Your task to perform on an android device: Go to Wikipedia Image 0: 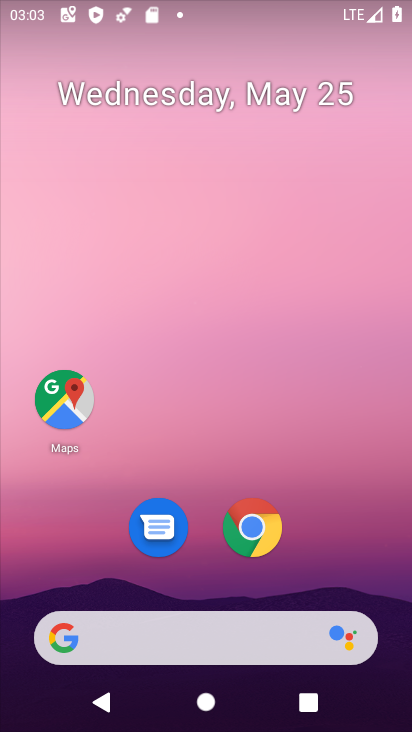
Step 0: drag from (199, 590) to (237, 222)
Your task to perform on an android device: Go to Wikipedia Image 1: 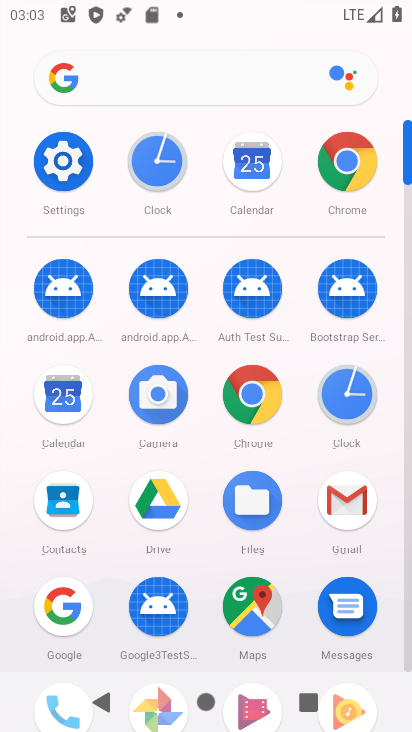
Step 1: click (66, 168)
Your task to perform on an android device: Go to Wikipedia Image 2: 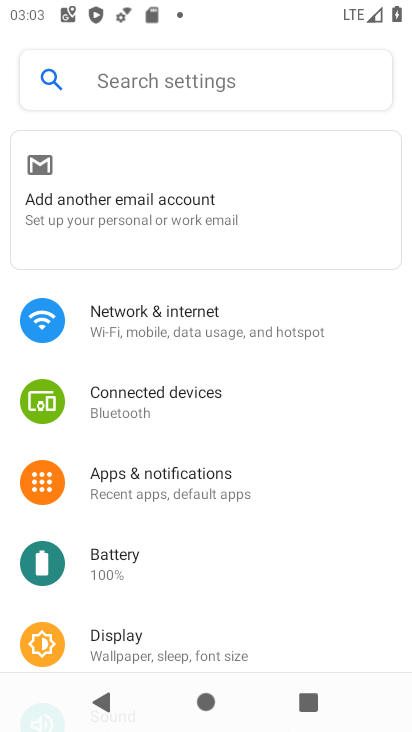
Step 2: click (189, 101)
Your task to perform on an android device: Go to Wikipedia Image 3: 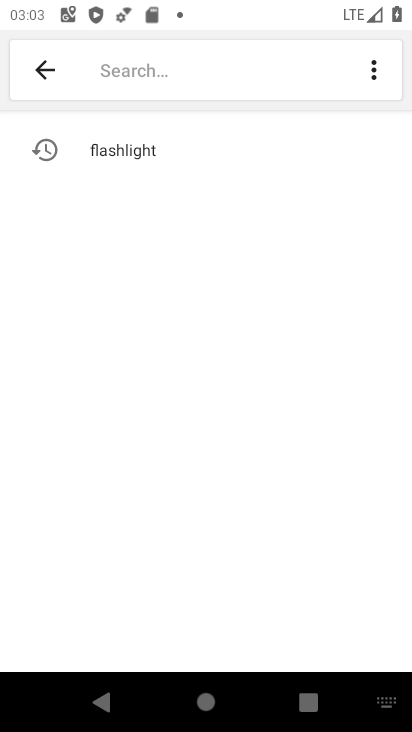
Step 3: click (38, 65)
Your task to perform on an android device: Go to Wikipedia Image 4: 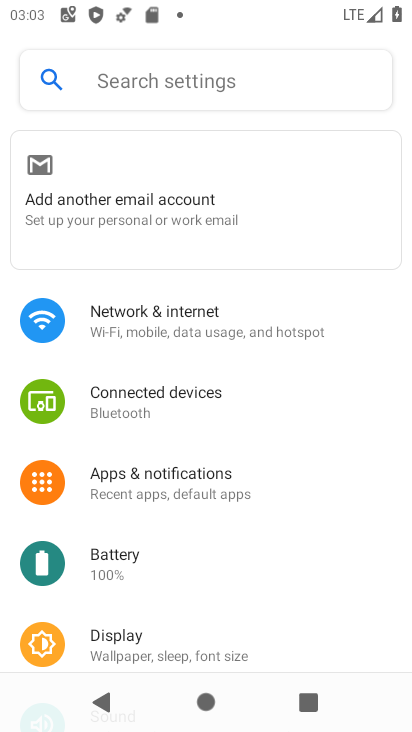
Step 4: press home button
Your task to perform on an android device: Go to Wikipedia Image 5: 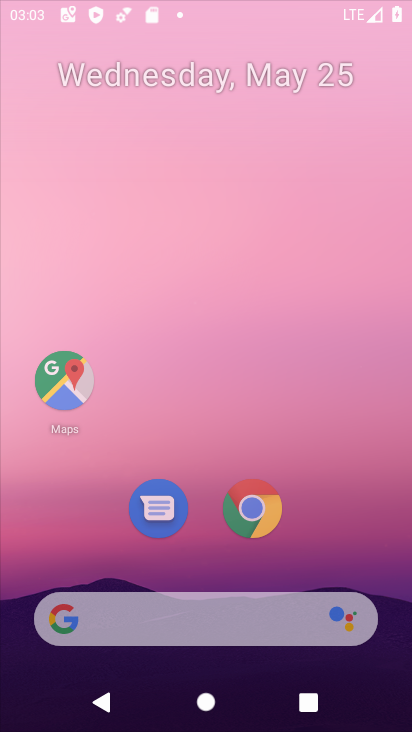
Step 5: drag from (222, 609) to (225, 96)
Your task to perform on an android device: Go to Wikipedia Image 6: 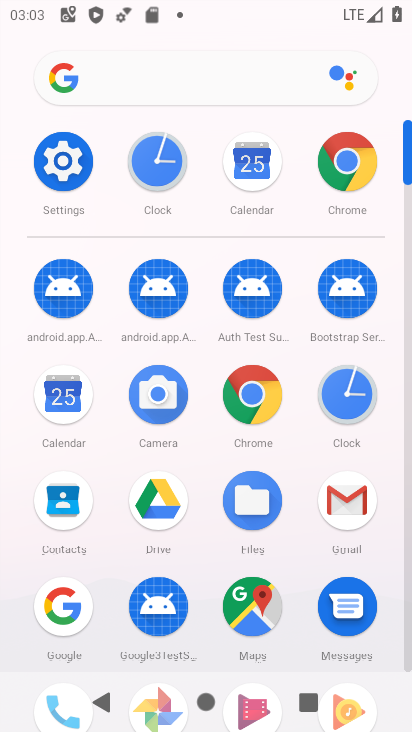
Step 6: click (195, 74)
Your task to perform on an android device: Go to Wikipedia Image 7: 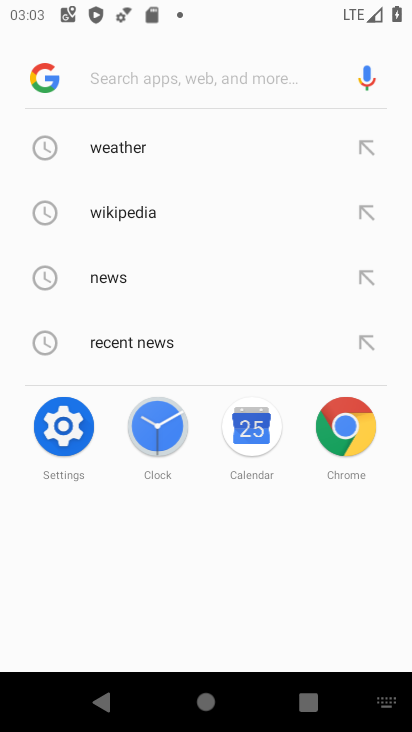
Step 7: click (136, 216)
Your task to perform on an android device: Go to Wikipedia Image 8: 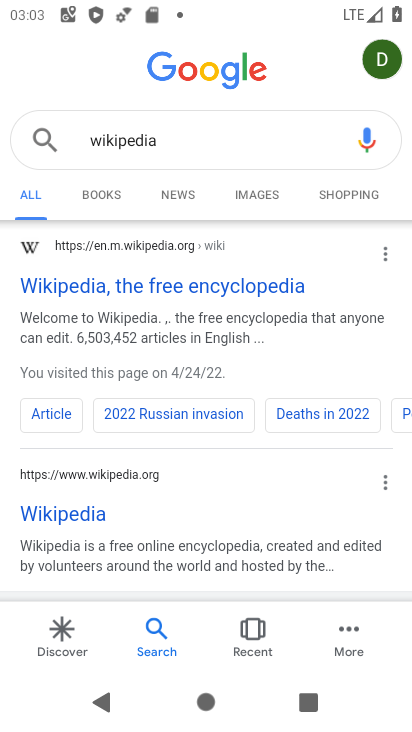
Step 8: click (78, 280)
Your task to perform on an android device: Go to Wikipedia Image 9: 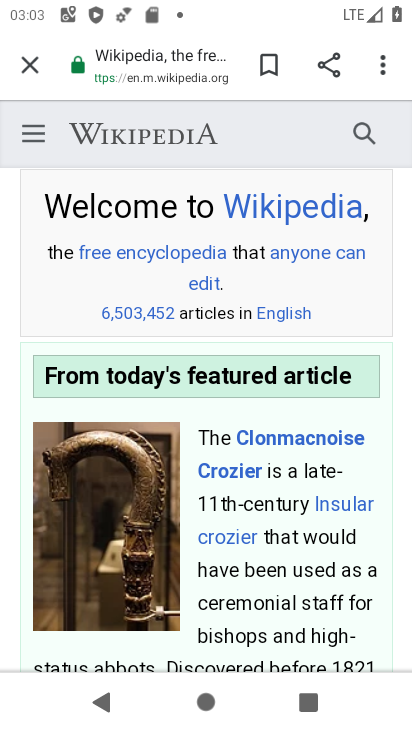
Step 9: task complete